Your task to perform on an android device: Go to battery settings Image 0: 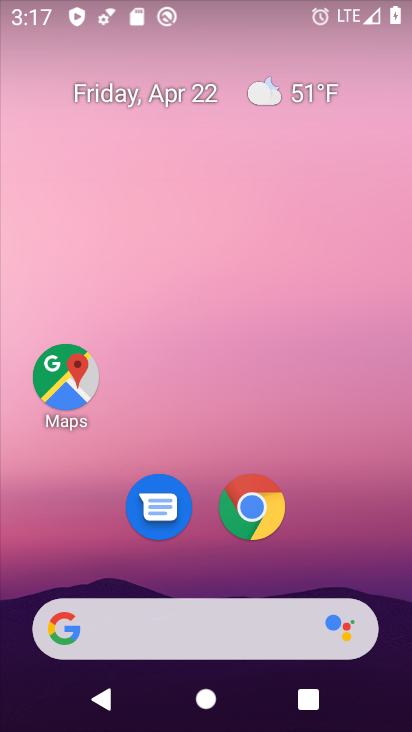
Step 0: drag from (220, 576) to (257, 39)
Your task to perform on an android device: Go to battery settings Image 1: 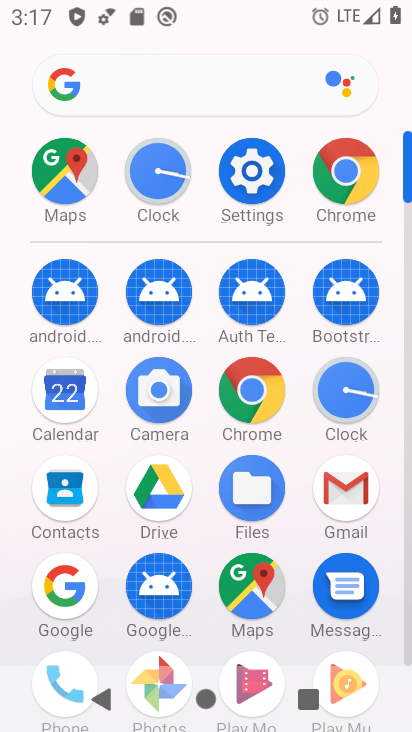
Step 1: click (261, 174)
Your task to perform on an android device: Go to battery settings Image 2: 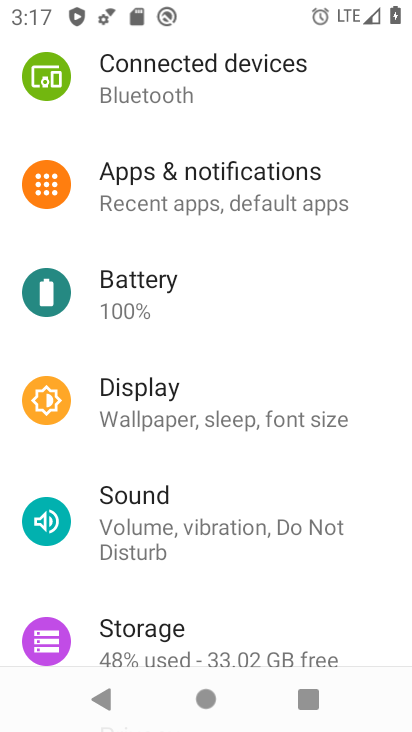
Step 2: click (128, 275)
Your task to perform on an android device: Go to battery settings Image 3: 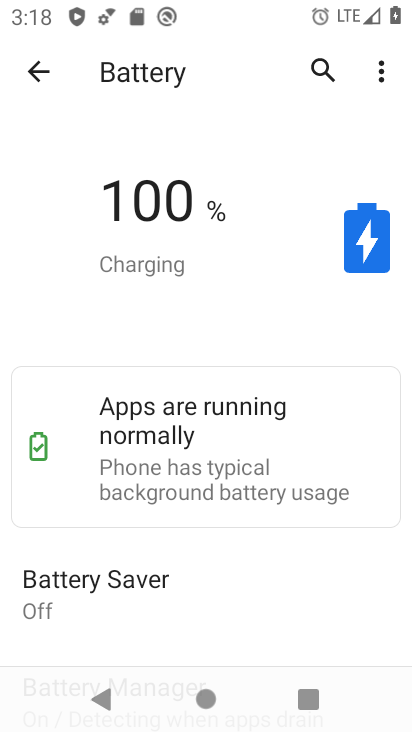
Step 3: task complete